Your task to perform on an android device: uninstall "Google Sheets" Image 0: 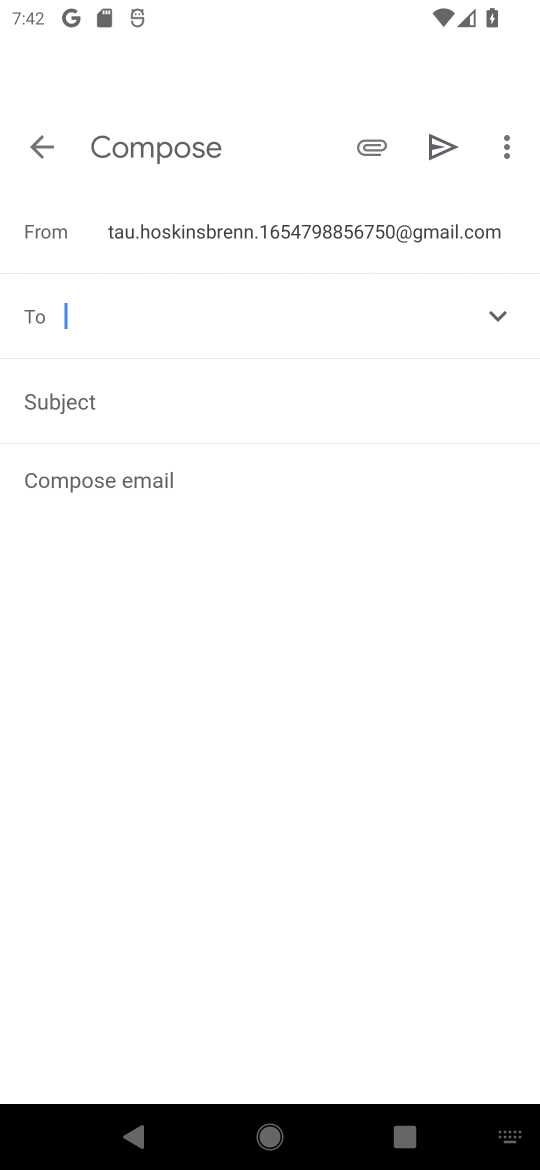
Step 0: press home button
Your task to perform on an android device: uninstall "Google Sheets" Image 1: 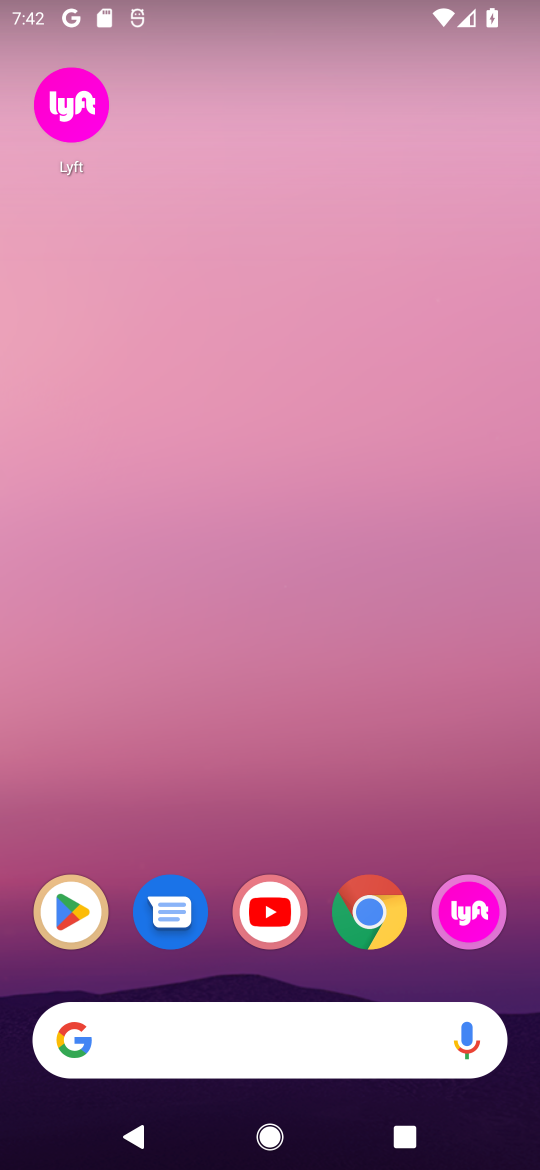
Step 1: drag from (174, 1021) to (307, 5)
Your task to perform on an android device: uninstall "Google Sheets" Image 2: 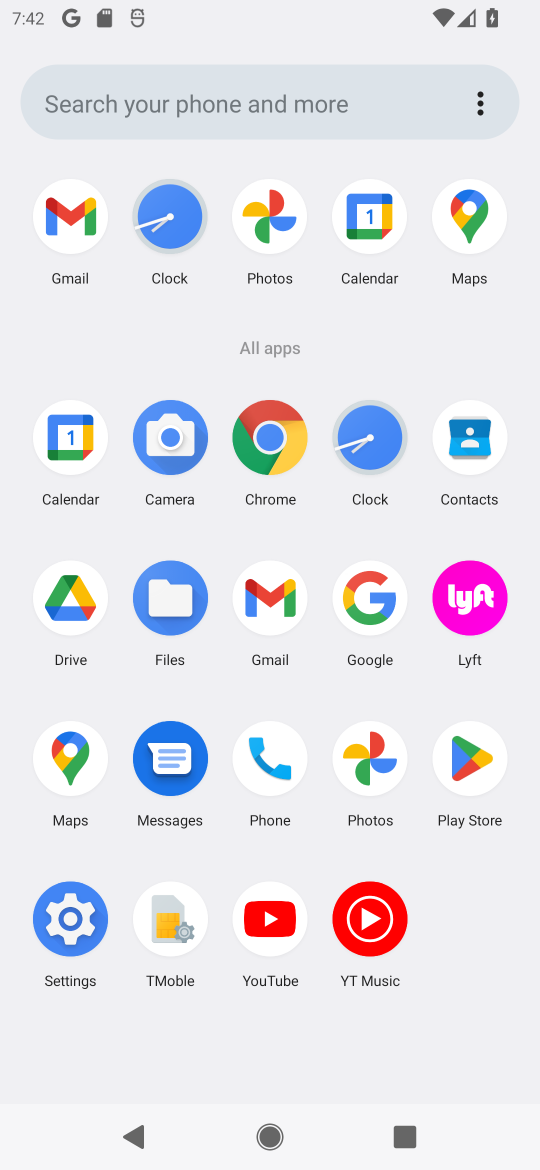
Step 2: click (459, 764)
Your task to perform on an android device: uninstall "Google Sheets" Image 3: 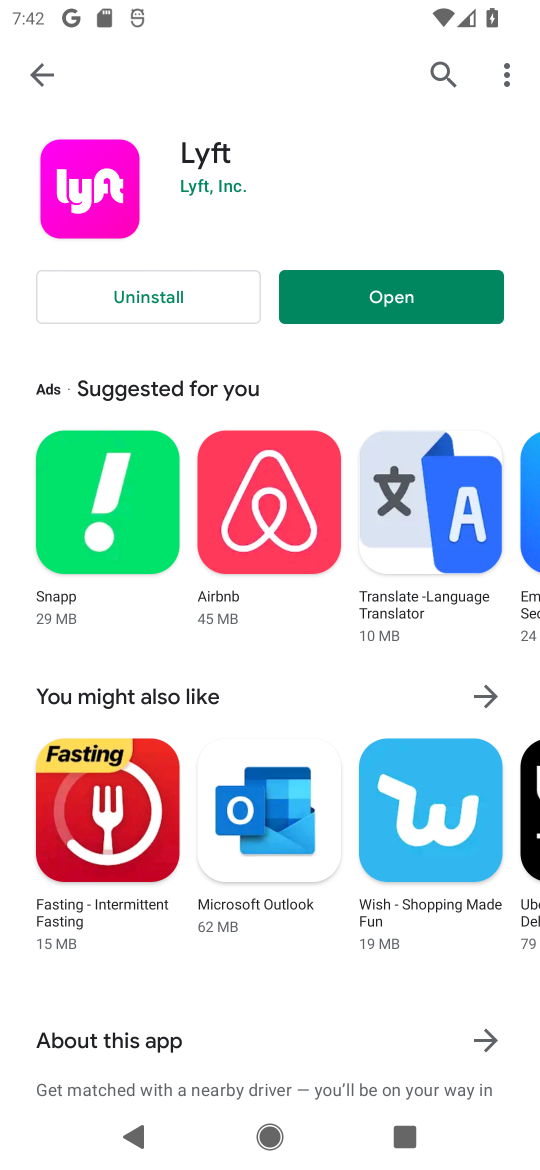
Step 3: click (39, 84)
Your task to perform on an android device: uninstall "Google Sheets" Image 4: 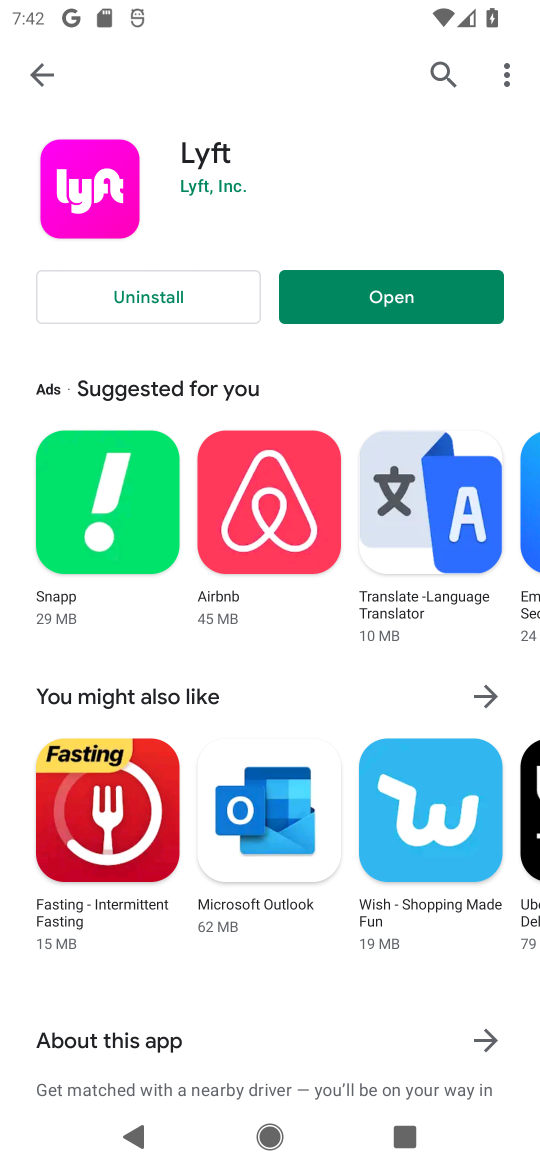
Step 4: click (40, 74)
Your task to perform on an android device: uninstall "Google Sheets" Image 5: 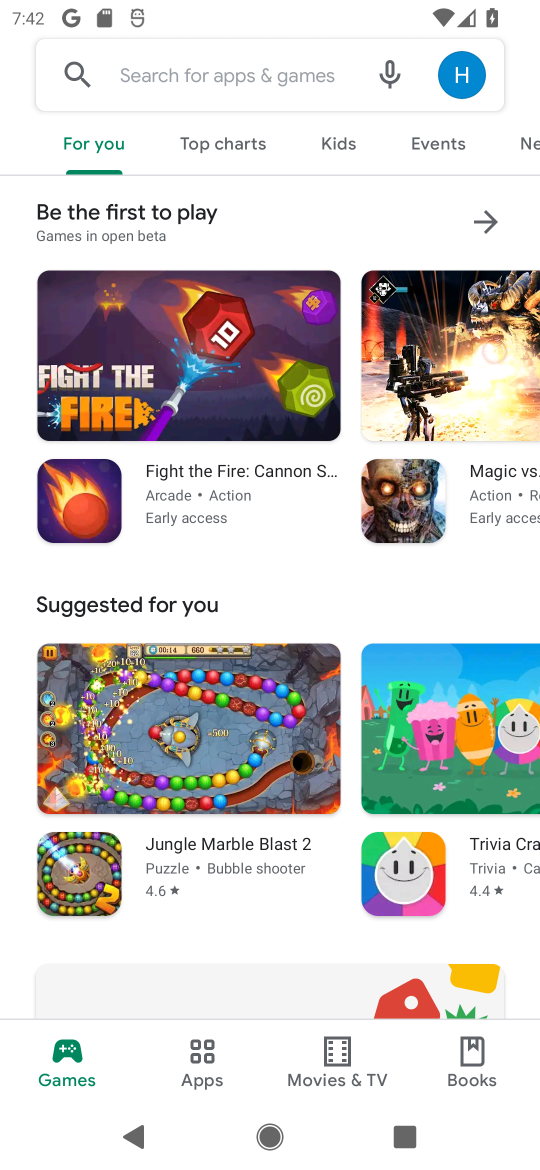
Step 5: click (219, 81)
Your task to perform on an android device: uninstall "Google Sheets" Image 6: 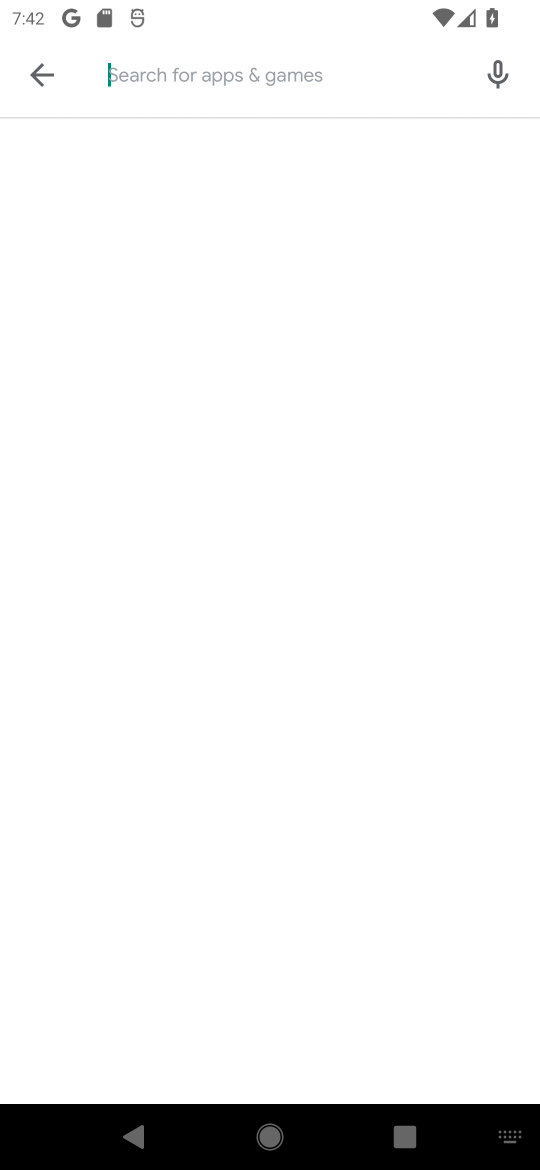
Step 6: type "Google Sheets"
Your task to perform on an android device: uninstall "Google Sheets" Image 7: 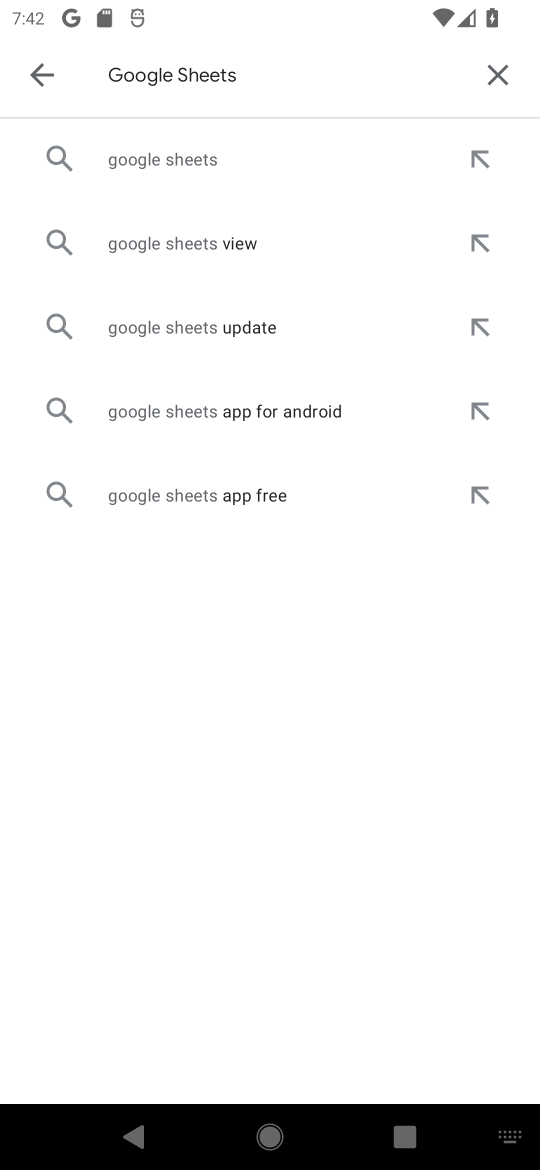
Step 7: click (149, 163)
Your task to perform on an android device: uninstall "Google Sheets" Image 8: 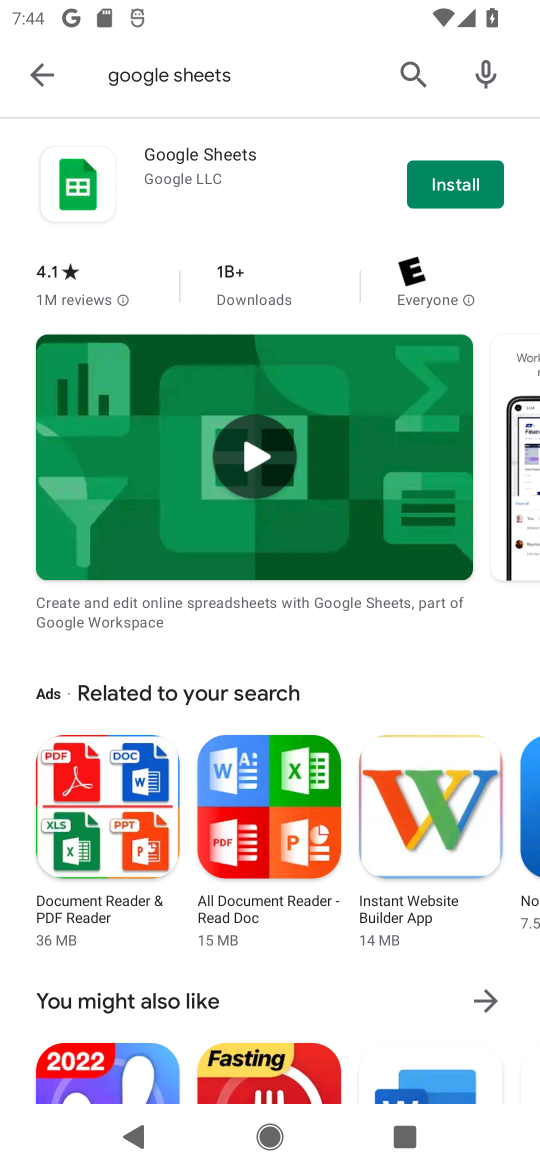
Step 8: task complete